Your task to perform on an android device: turn on translation in the chrome app Image 0: 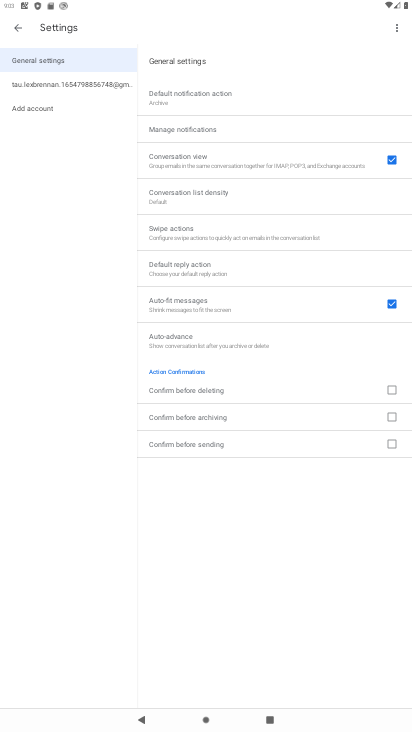
Step 0: press home button
Your task to perform on an android device: turn on translation in the chrome app Image 1: 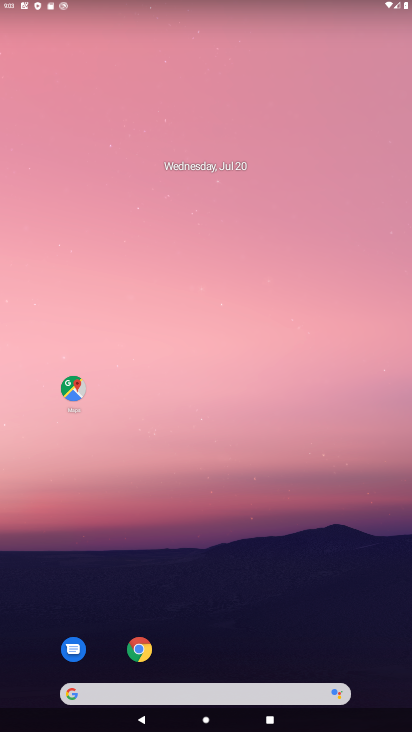
Step 1: click (145, 650)
Your task to perform on an android device: turn on translation in the chrome app Image 2: 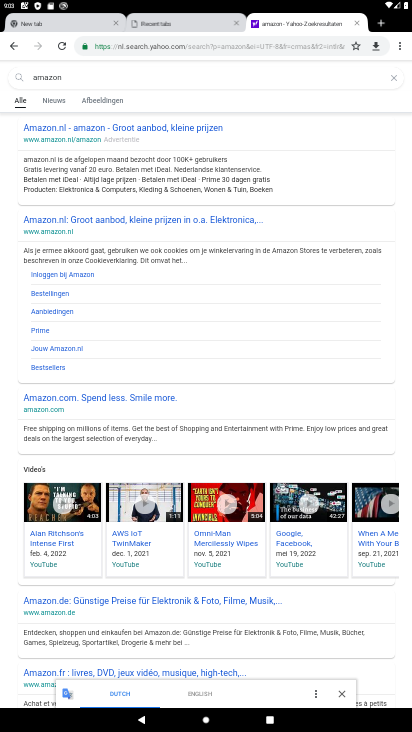
Step 2: click (380, 27)
Your task to perform on an android device: turn on translation in the chrome app Image 3: 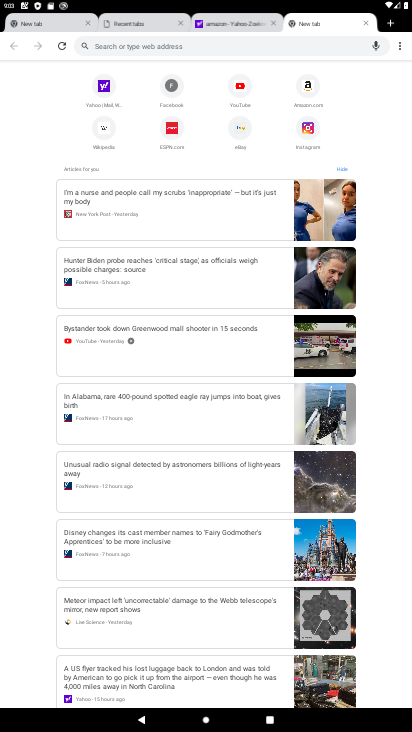
Step 3: click (392, 52)
Your task to perform on an android device: turn on translation in the chrome app Image 4: 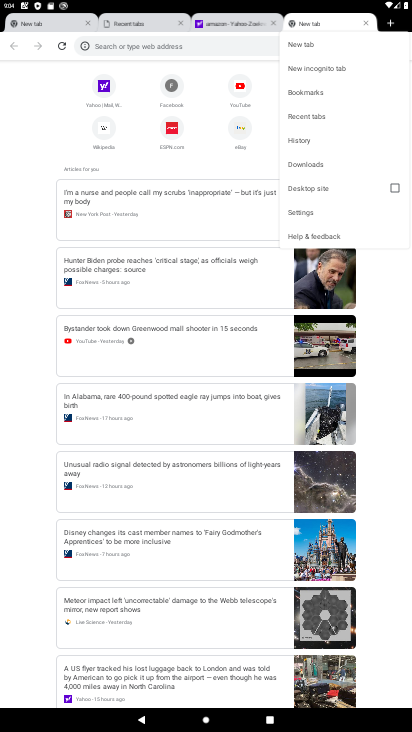
Step 4: click (329, 204)
Your task to perform on an android device: turn on translation in the chrome app Image 5: 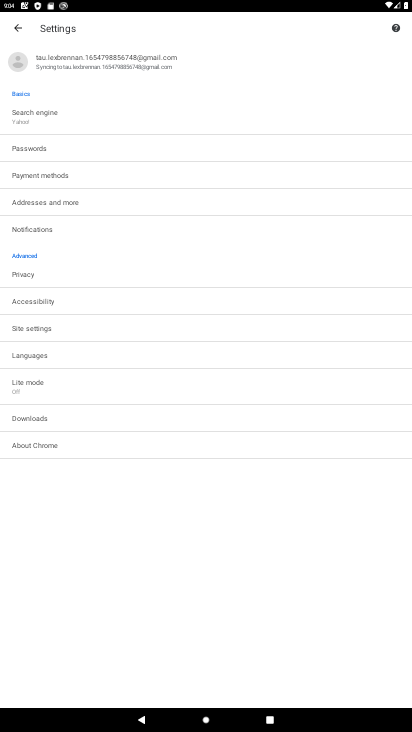
Step 5: click (174, 332)
Your task to perform on an android device: turn on translation in the chrome app Image 6: 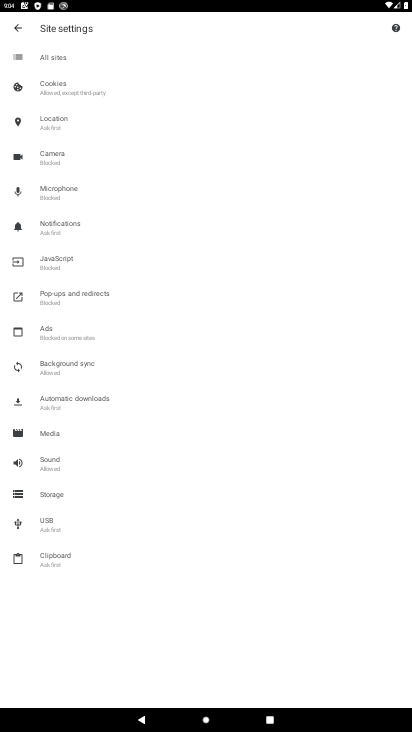
Step 6: task complete